Your task to perform on an android device: turn notification dots on Image 0: 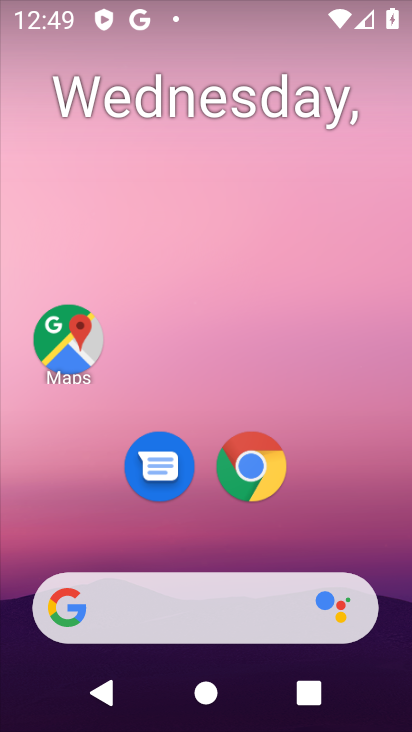
Step 0: drag from (312, 528) to (313, 245)
Your task to perform on an android device: turn notification dots on Image 1: 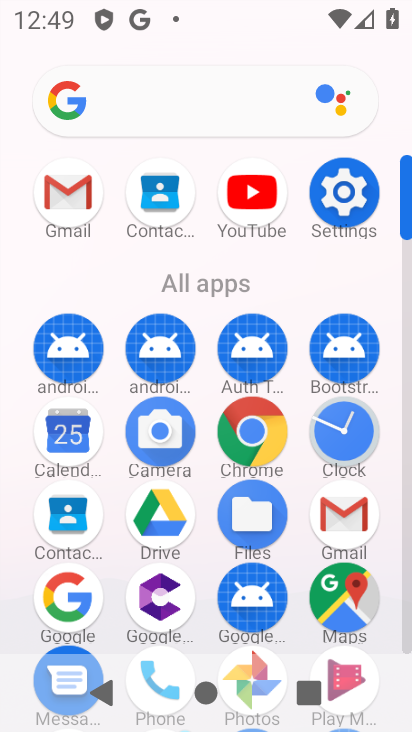
Step 1: click (338, 193)
Your task to perform on an android device: turn notification dots on Image 2: 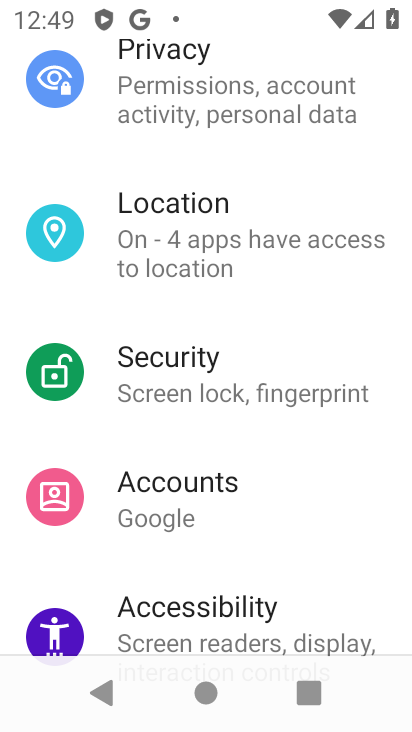
Step 2: drag from (281, 182) to (309, 539)
Your task to perform on an android device: turn notification dots on Image 3: 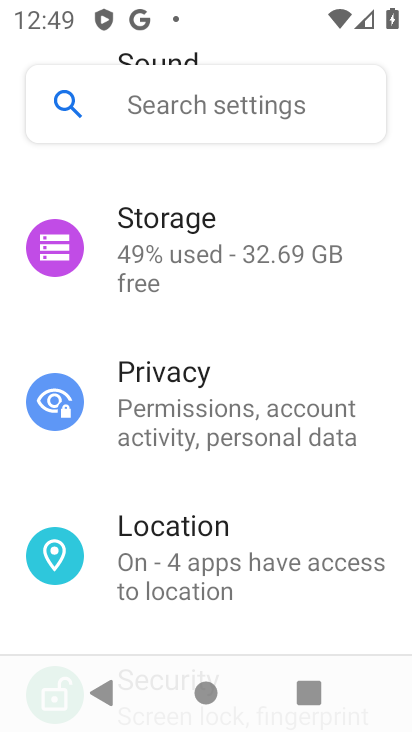
Step 3: drag from (254, 312) to (257, 499)
Your task to perform on an android device: turn notification dots on Image 4: 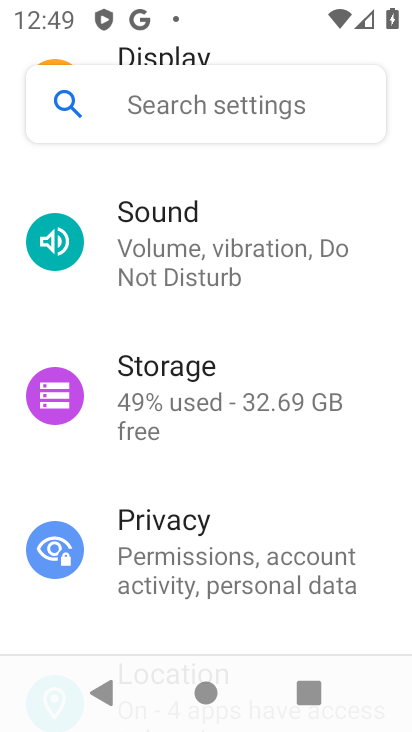
Step 4: drag from (162, 215) to (179, 478)
Your task to perform on an android device: turn notification dots on Image 5: 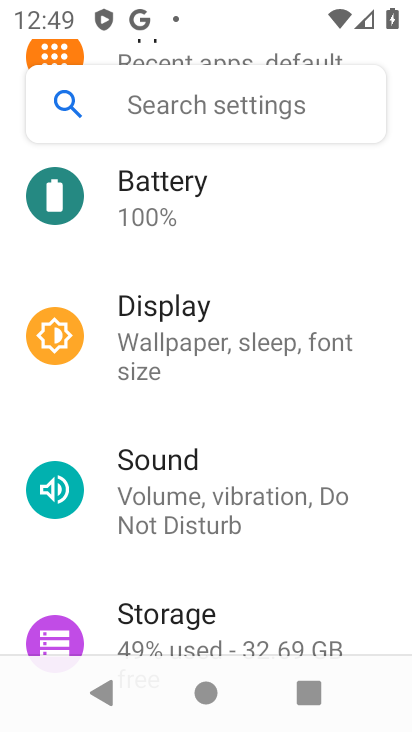
Step 5: drag from (220, 272) to (249, 520)
Your task to perform on an android device: turn notification dots on Image 6: 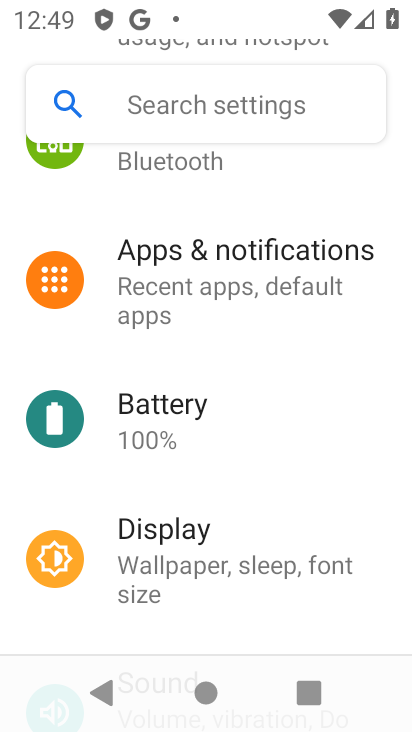
Step 6: drag from (236, 292) to (237, 489)
Your task to perform on an android device: turn notification dots on Image 7: 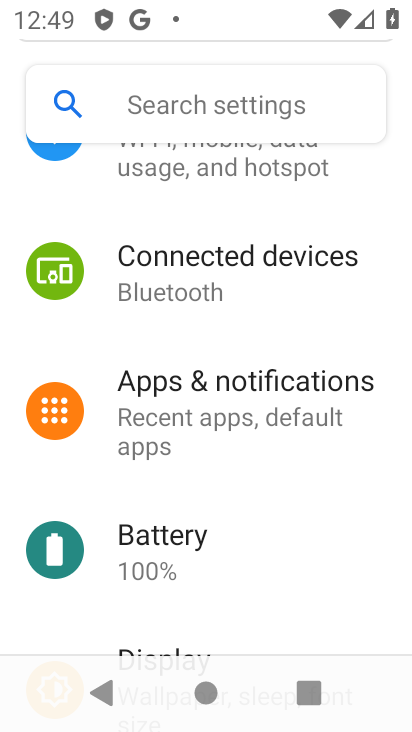
Step 7: drag from (229, 305) to (226, 512)
Your task to perform on an android device: turn notification dots on Image 8: 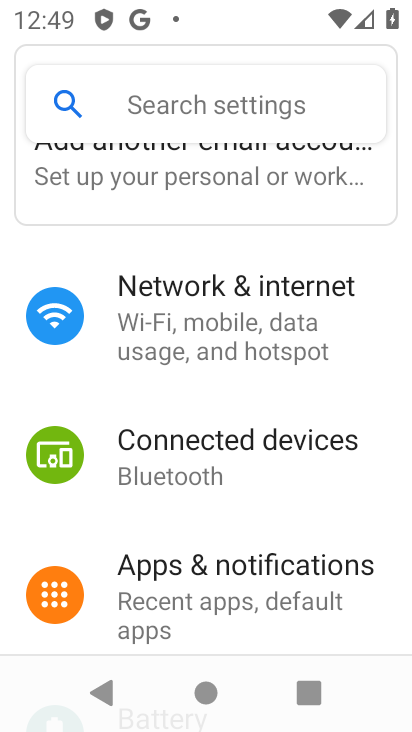
Step 8: click (316, 567)
Your task to perform on an android device: turn notification dots on Image 9: 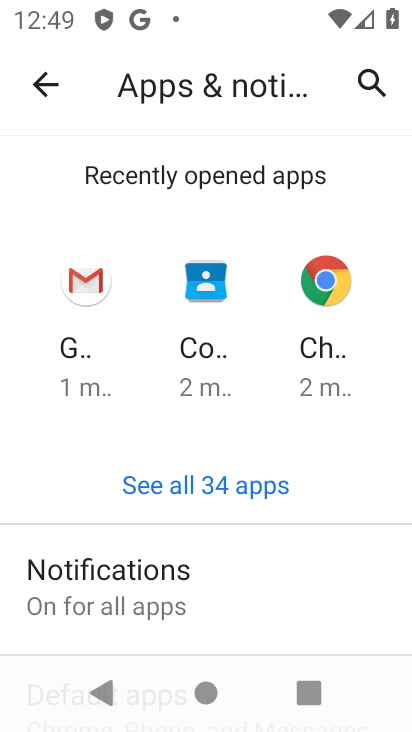
Step 9: drag from (313, 612) to (346, 172)
Your task to perform on an android device: turn notification dots on Image 10: 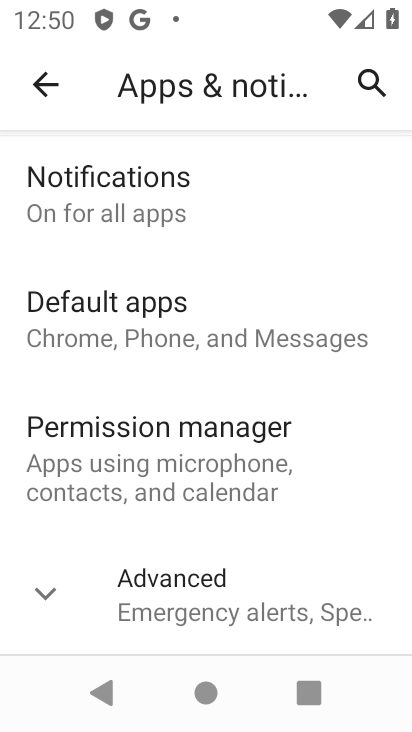
Step 10: click (200, 578)
Your task to perform on an android device: turn notification dots on Image 11: 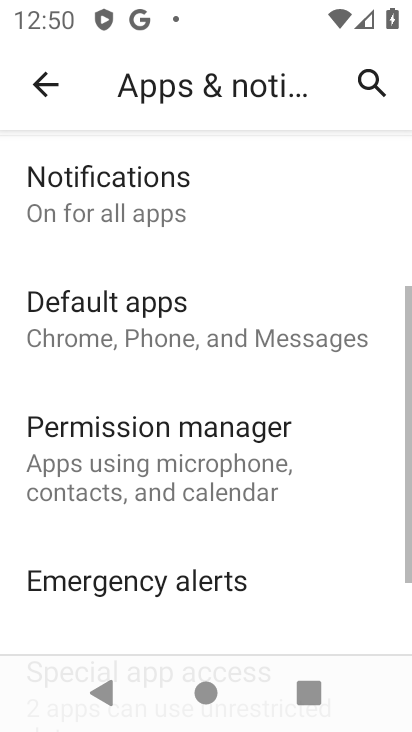
Step 11: drag from (195, 569) to (244, 205)
Your task to perform on an android device: turn notification dots on Image 12: 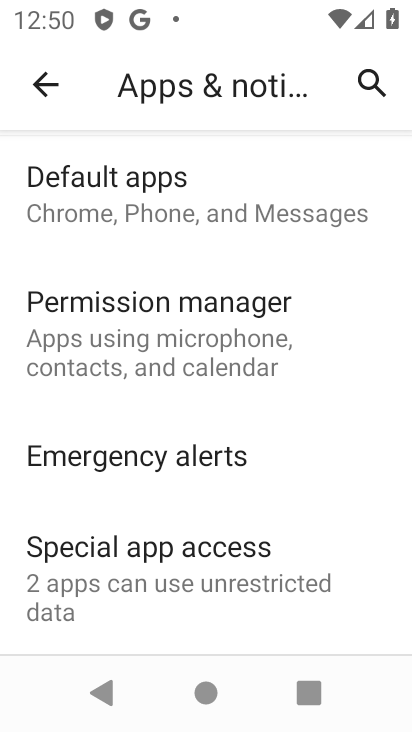
Step 12: drag from (207, 205) to (182, 554)
Your task to perform on an android device: turn notification dots on Image 13: 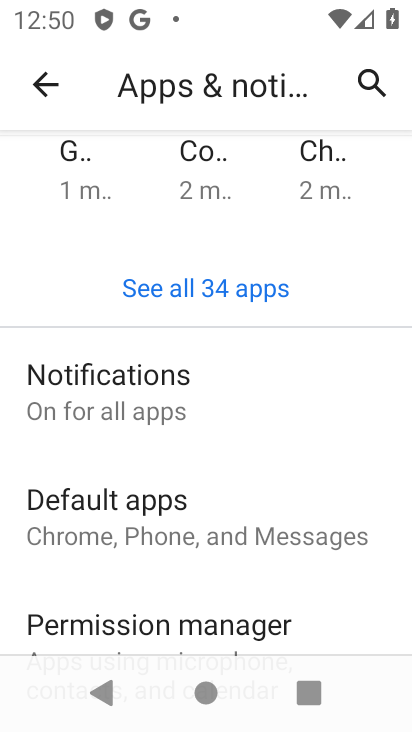
Step 13: click (125, 408)
Your task to perform on an android device: turn notification dots on Image 14: 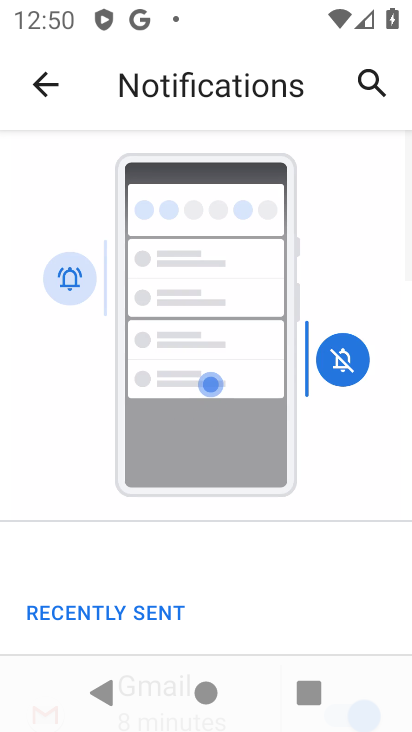
Step 14: drag from (248, 607) to (299, 167)
Your task to perform on an android device: turn notification dots on Image 15: 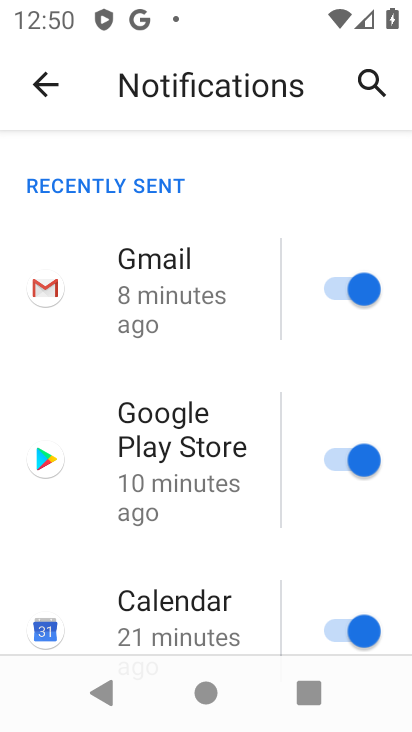
Step 15: drag from (216, 612) to (280, 242)
Your task to perform on an android device: turn notification dots on Image 16: 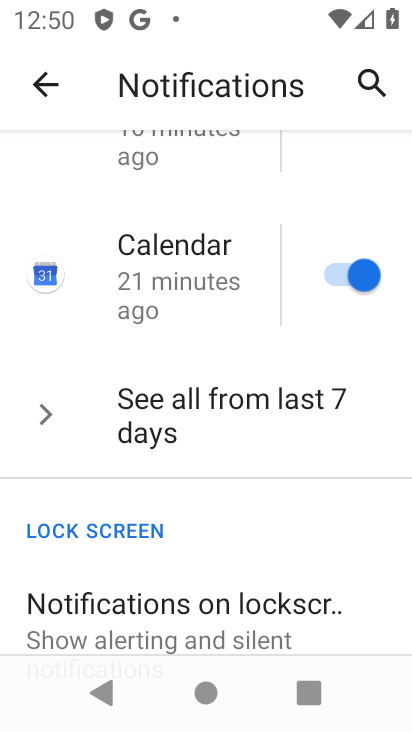
Step 16: drag from (215, 575) to (229, 261)
Your task to perform on an android device: turn notification dots on Image 17: 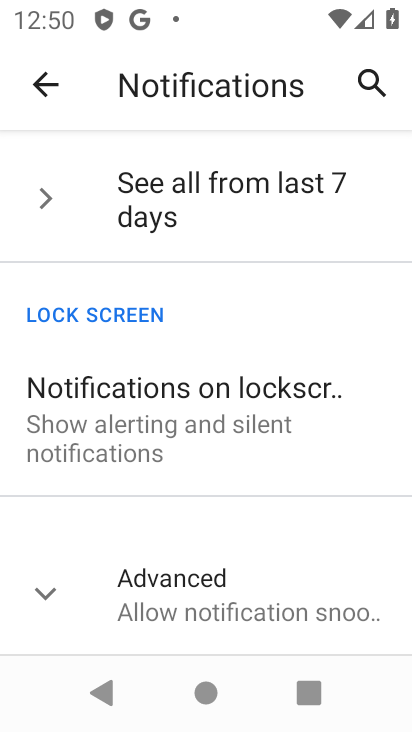
Step 17: click (194, 596)
Your task to perform on an android device: turn notification dots on Image 18: 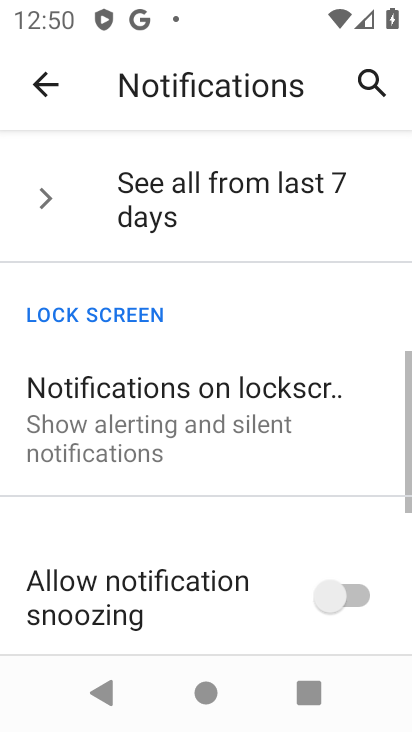
Step 18: task complete